Your task to perform on an android device: Open privacy settings Image 0: 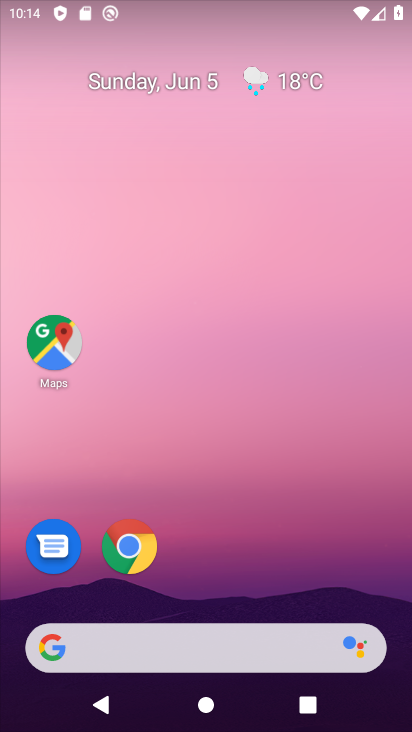
Step 0: drag from (151, 721) to (208, 114)
Your task to perform on an android device: Open privacy settings Image 1: 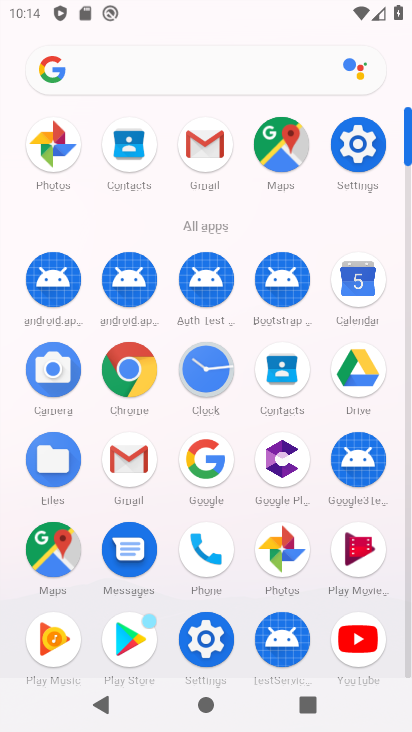
Step 1: click (209, 659)
Your task to perform on an android device: Open privacy settings Image 2: 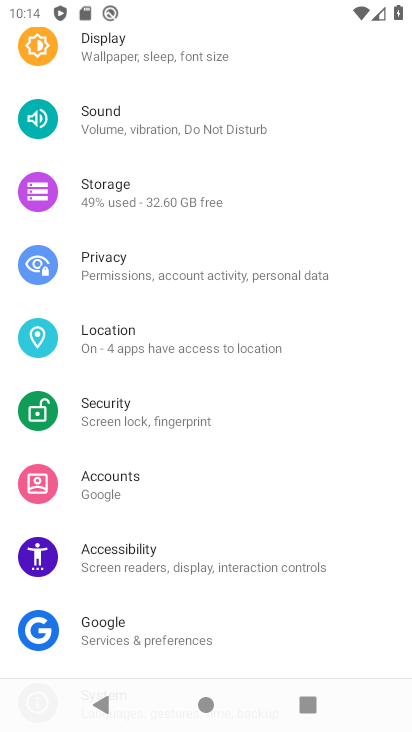
Step 2: drag from (245, 114) to (203, 516)
Your task to perform on an android device: Open privacy settings Image 3: 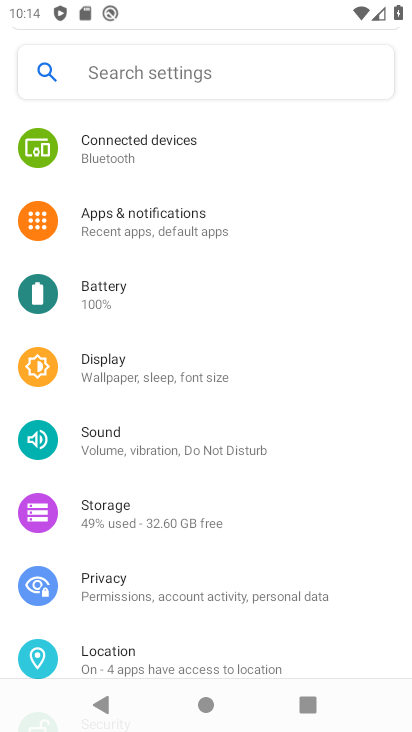
Step 3: click (230, 595)
Your task to perform on an android device: Open privacy settings Image 4: 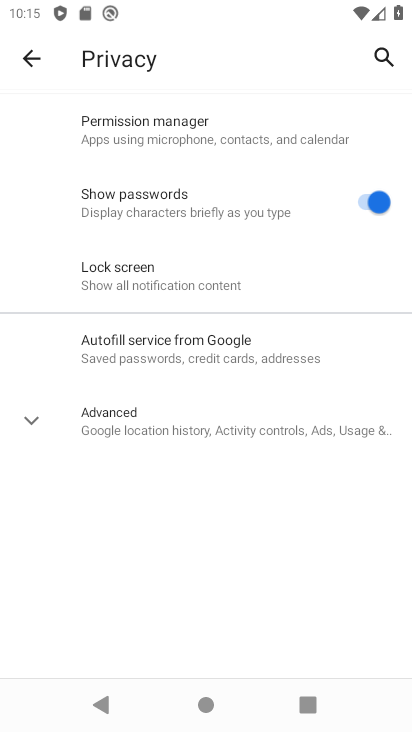
Step 4: task complete